Your task to perform on an android device: find photos in the google photos app Image 0: 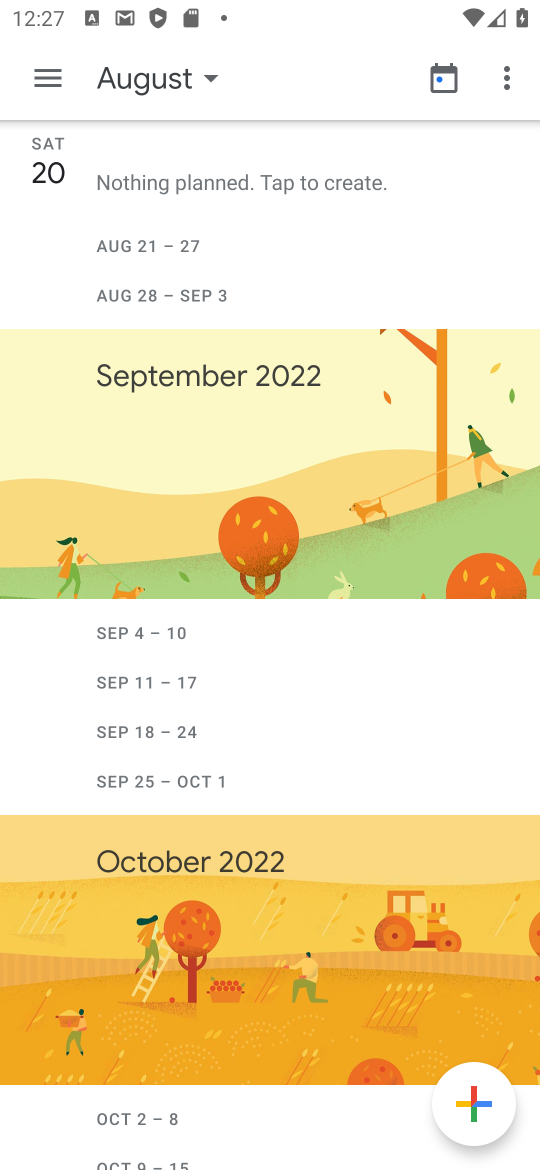
Step 0: press home button
Your task to perform on an android device: find photos in the google photos app Image 1: 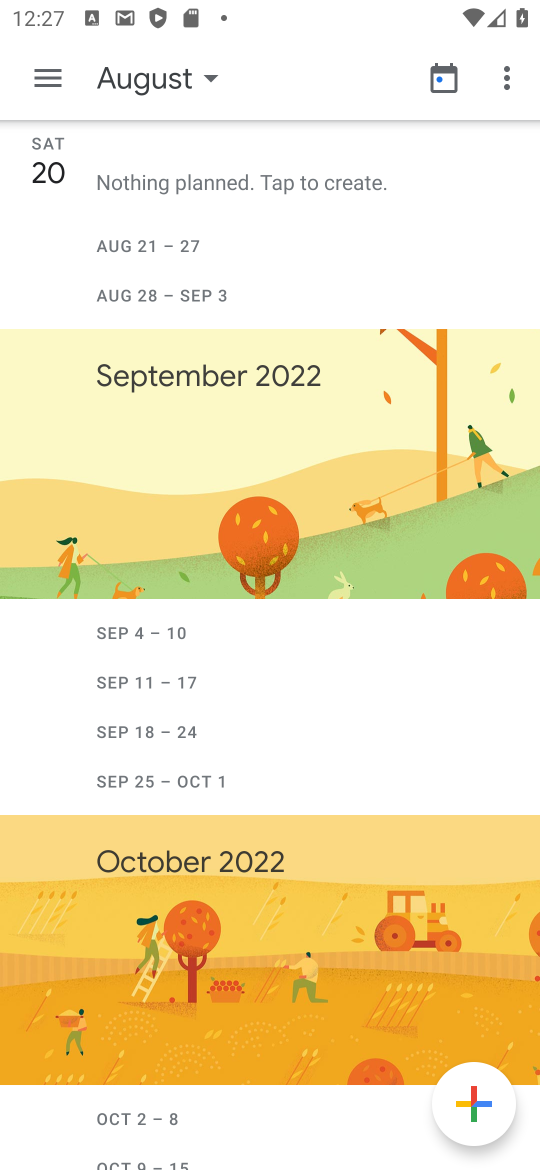
Step 1: press home button
Your task to perform on an android device: find photos in the google photos app Image 2: 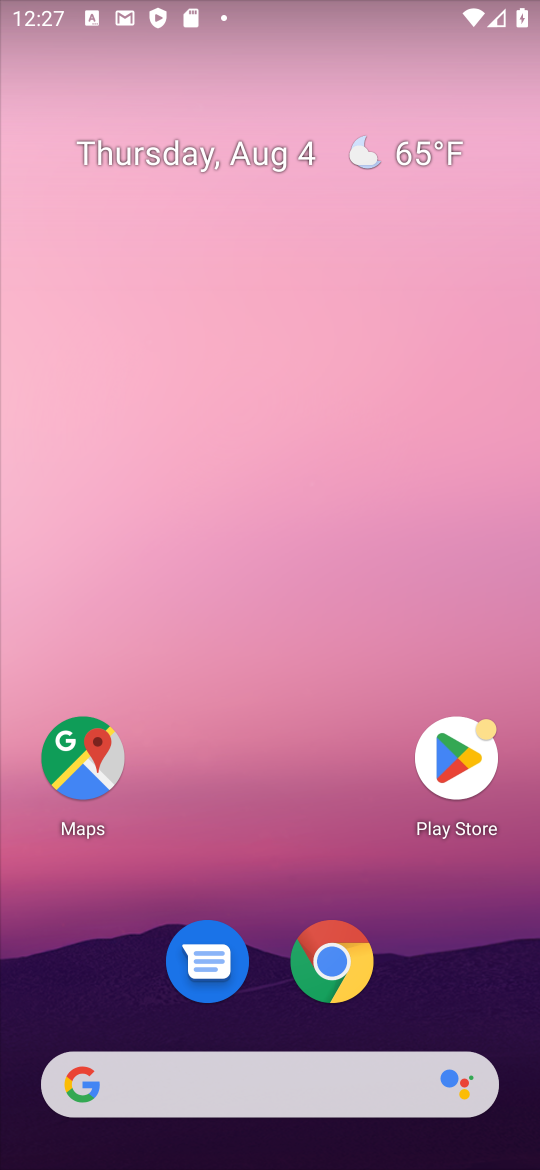
Step 2: drag from (274, 875) to (355, 0)
Your task to perform on an android device: find photos in the google photos app Image 3: 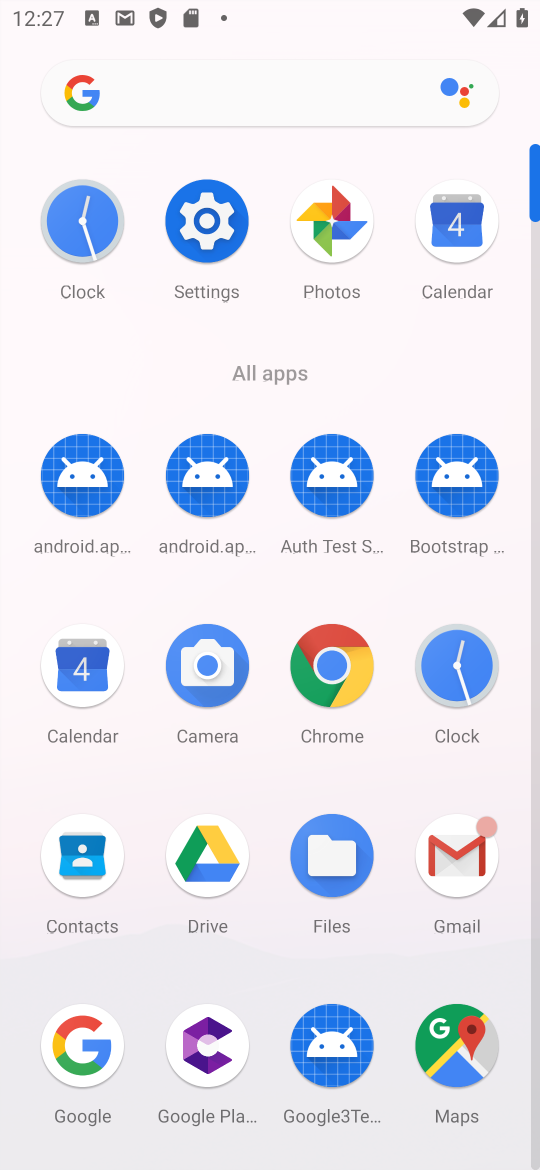
Step 3: click (339, 226)
Your task to perform on an android device: find photos in the google photos app Image 4: 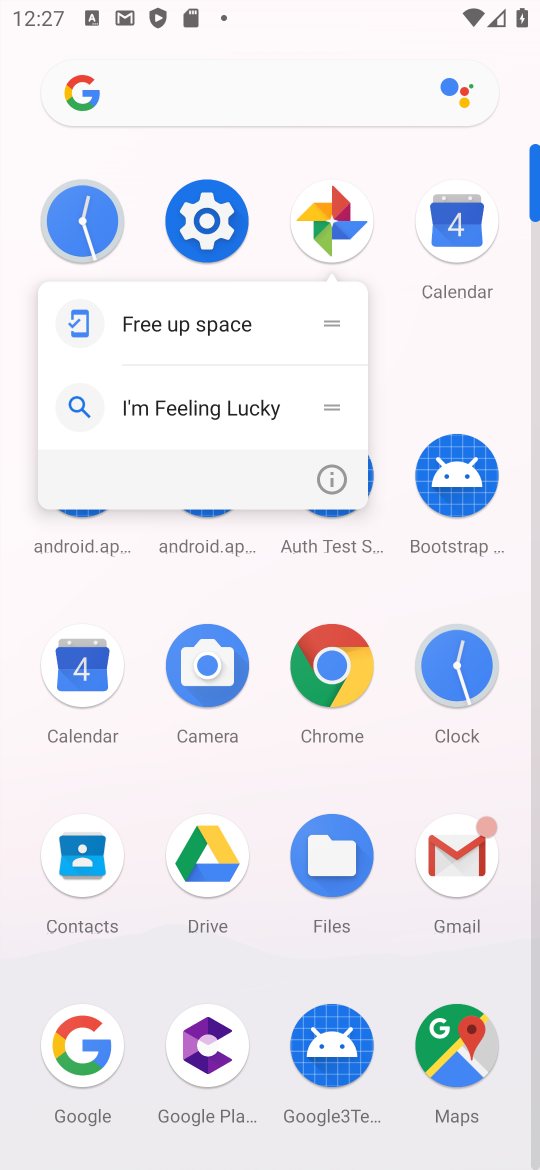
Step 4: click (339, 223)
Your task to perform on an android device: find photos in the google photos app Image 5: 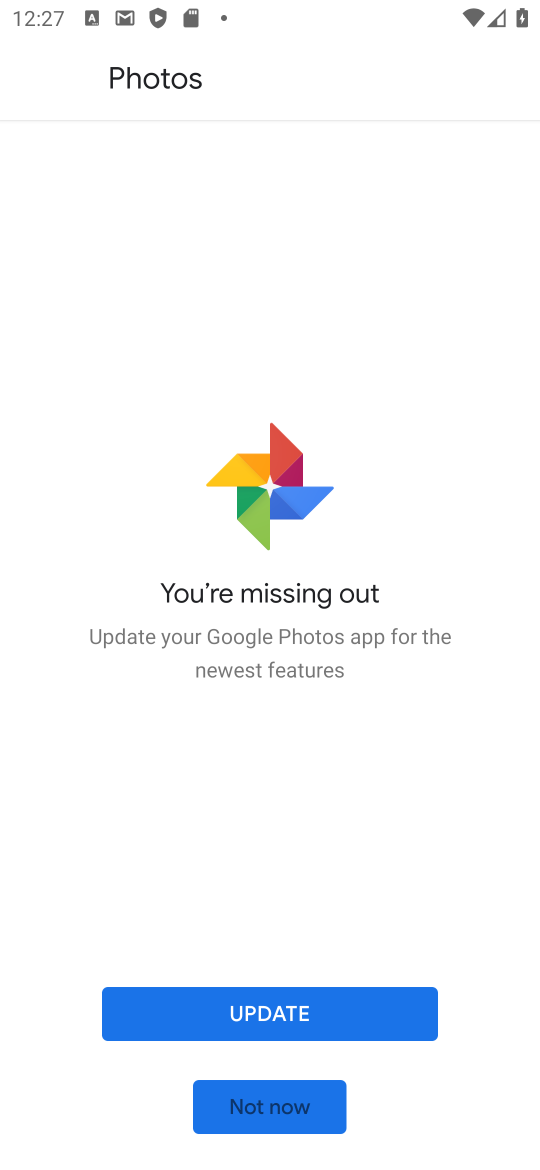
Step 5: click (322, 1103)
Your task to perform on an android device: find photos in the google photos app Image 6: 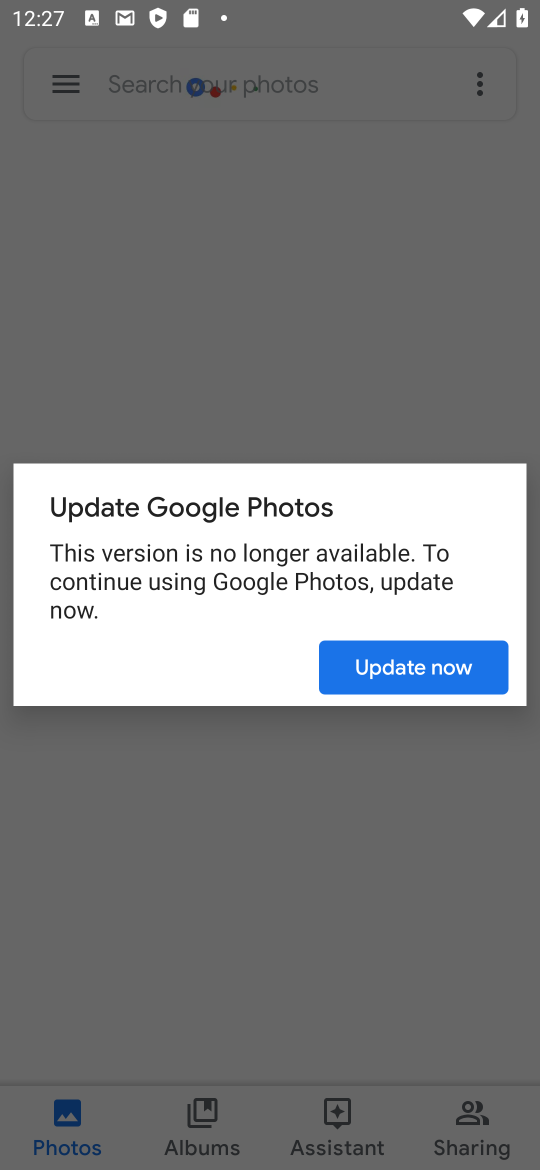
Step 6: click (450, 659)
Your task to perform on an android device: find photos in the google photos app Image 7: 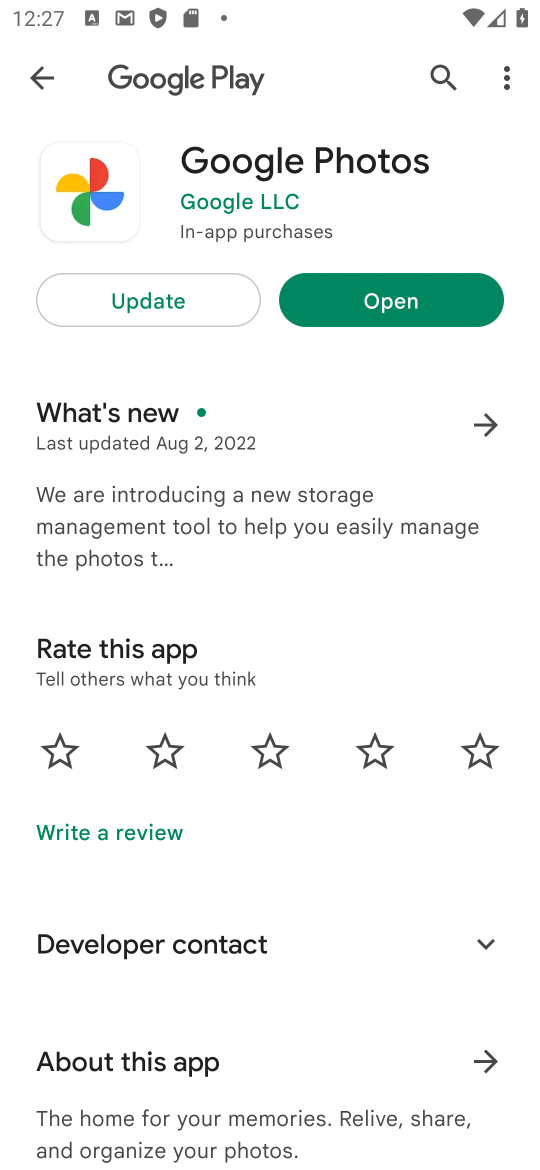
Step 7: click (402, 295)
Your task to perform on an android device: find photos in the google photos app Image 8: 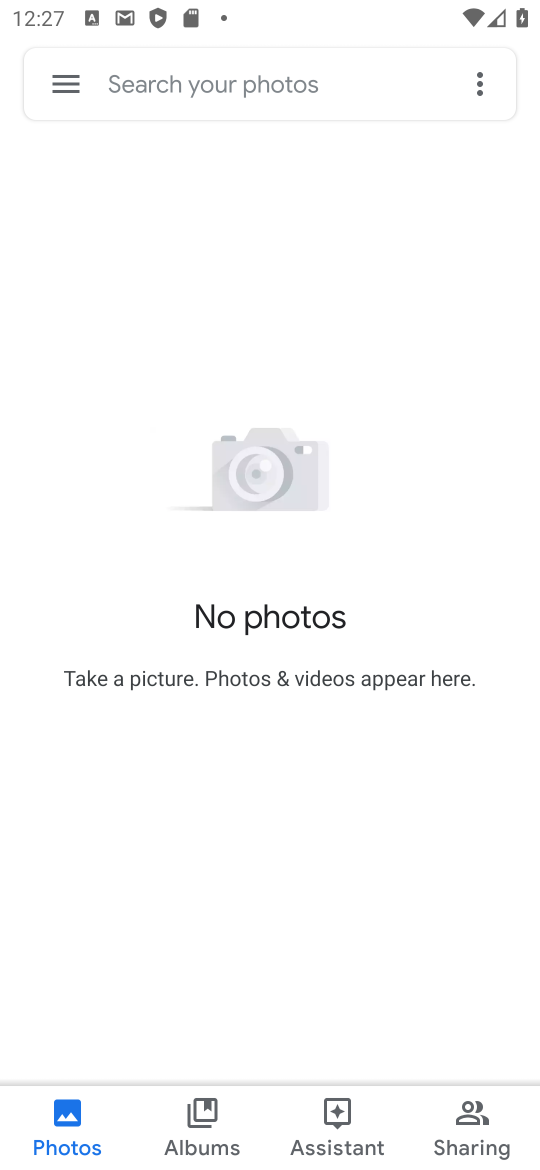
Step 8: click (78, 1126)
Your task to perform on an android device: find photos in the google photos app Image 9: 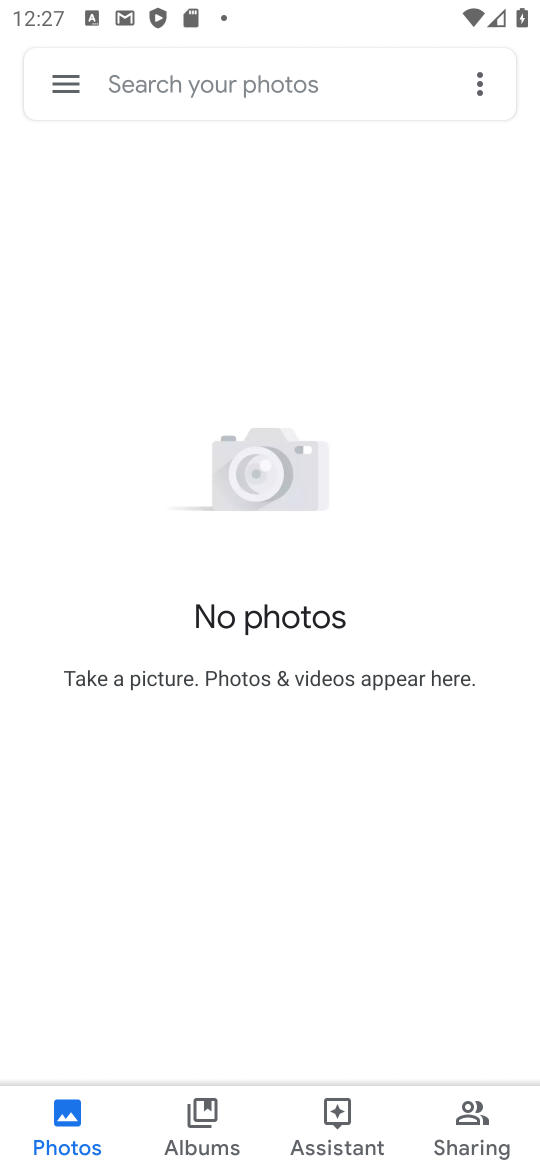
Step 9: task complete